Your task to perform on an android device: toggle priority inbox in the gmail app Image 0: 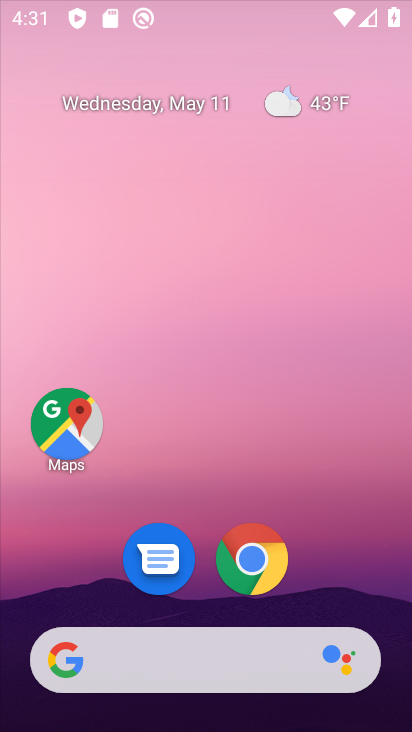
Step 0: drag from (334, 505) to (368, 201)
Your task to perform on an android device: toggle priority inbox in the gmail app Image 1: 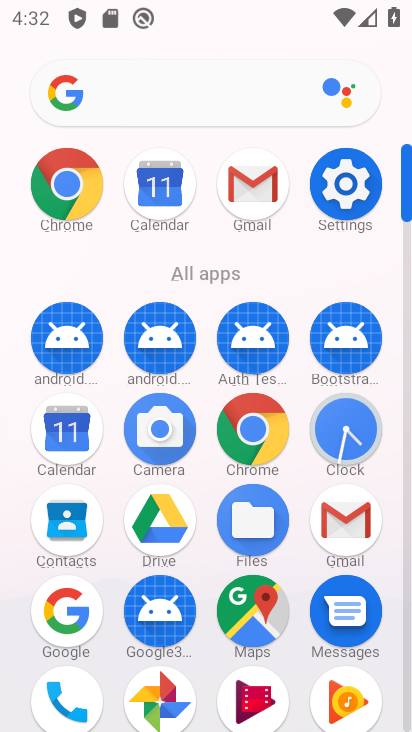
Step 1: click (257, 221)
Your task to perform on an android device: toggle priority inbox in the gmail app Image 2: 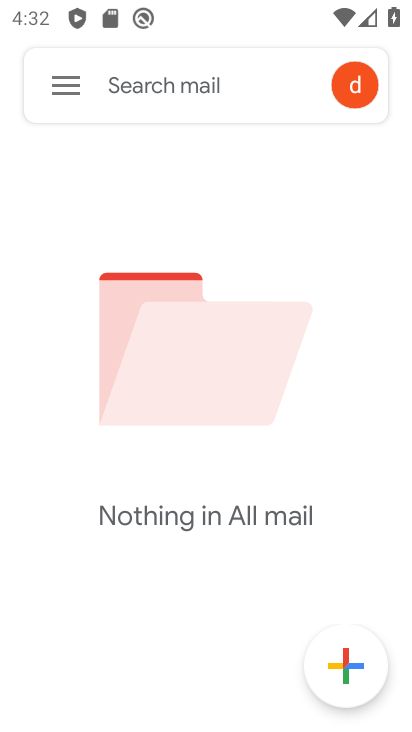
Step 2: click (57, 90)
Your task to perform on an android device: toggle priority inbox in the gmail app Image 3: 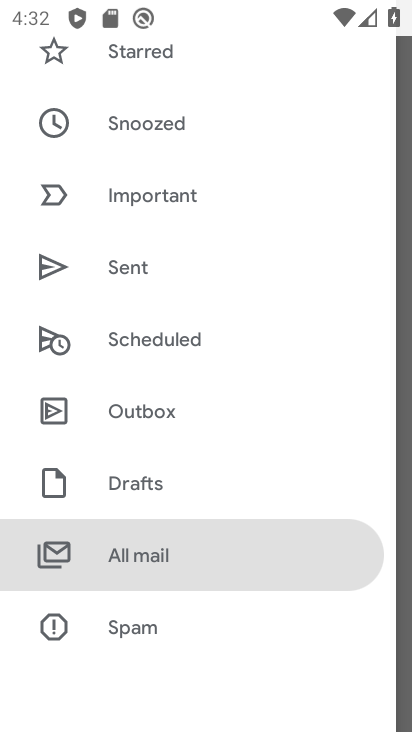
Step 3: drag from (210, 290) to (208, 519)
Your task to perform on an android device: toggle priority inbox in the gmail app Image 4: 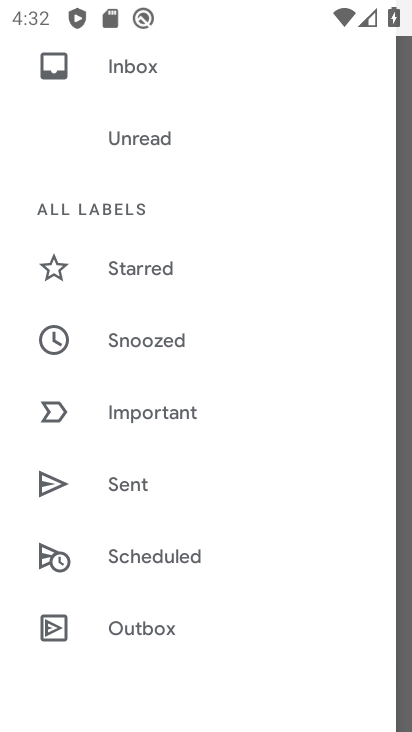
Step 4: drag from (235, 195) to (203, 526)
Your task to perform on an android device: toggle priority inbox in the gmail app Image 5: 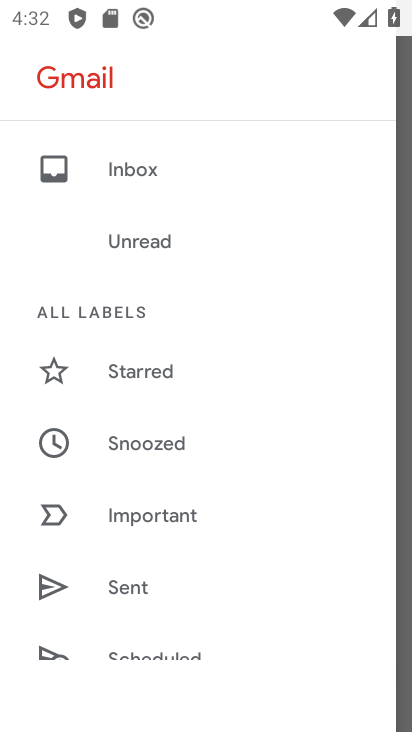
Step 5: drag from (163, 617) to (220, 205)
Your task to perform on an android device: toggle priority inbox in the gmail app Image 6: 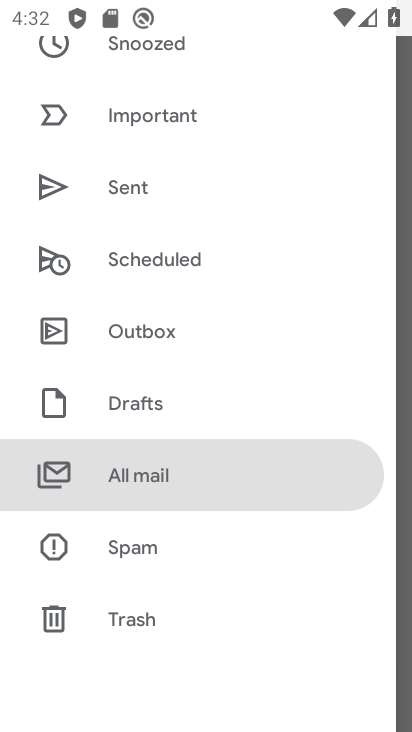
Step 6: drag from (204, 577) to (221, 215)
Your task to perform on an android device: toggle priority inbox in the gmail app Image 7: 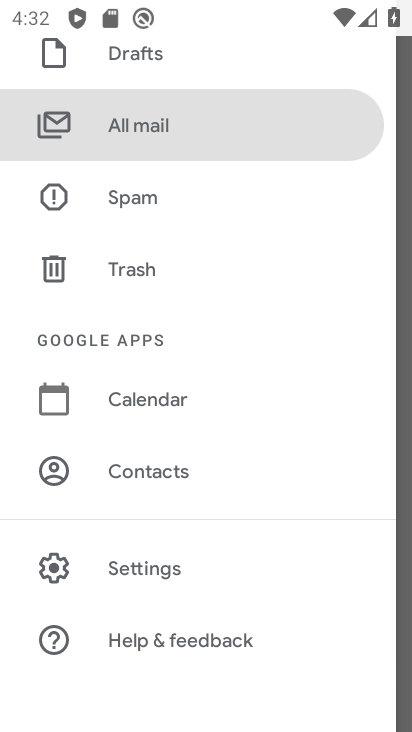
Step 7: click (122, 577)
Your task to perform on an android device: toggle priority inbox in the gmail app Image 8: 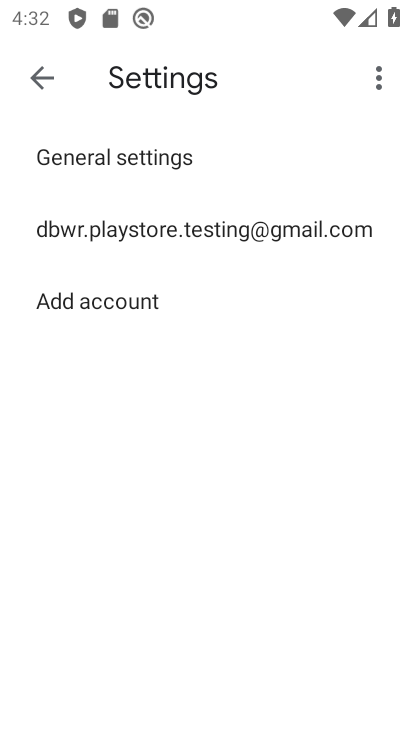
Step 8: click (151, 229)
Your task to perform on an android device: toggle priority inbox in the gmail app Image 9: 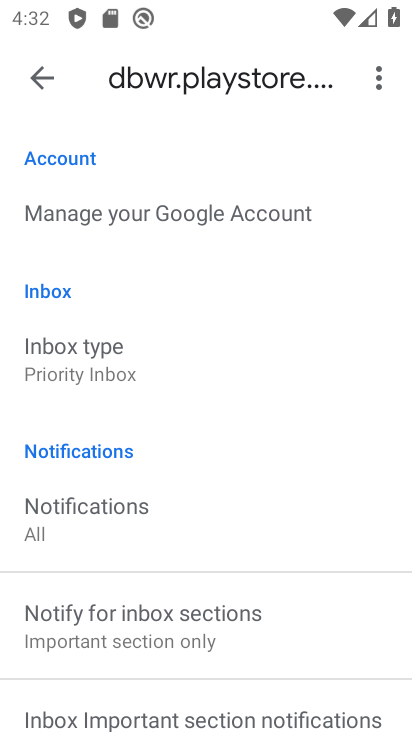
Step 9: click (101, 375)
Your task to perform on an android device: toggle priority inbox in the gmail app Image 10: 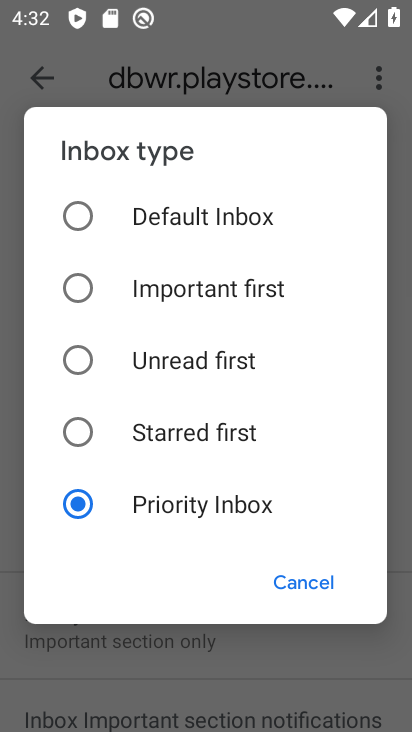
Step 10: click (87, 216)
Your task to perform on an android device: toggle priority inbox in the gmail app Image 11: 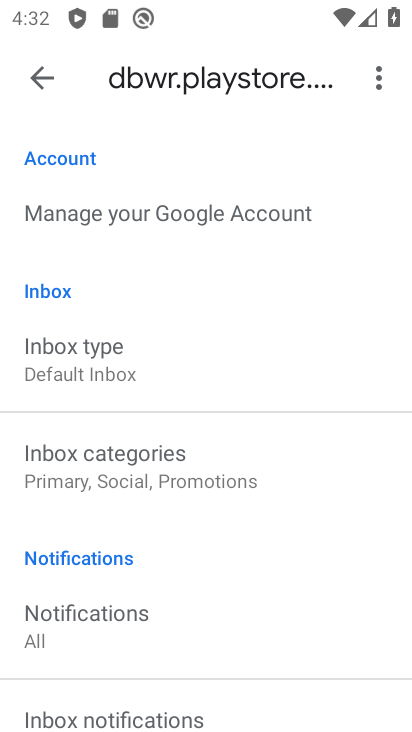
Step 11: task complete